Your task to perform on an android device: Show me popular games on the Play Store Image 0: 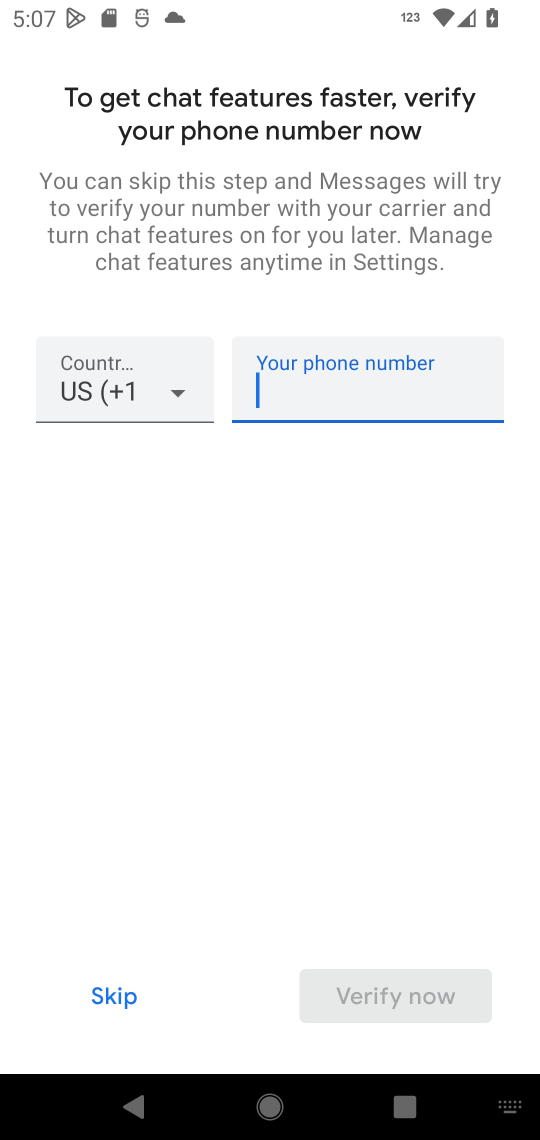
Step 0: task complete